Your task to perform on an android device: Open notification settings Image 0: 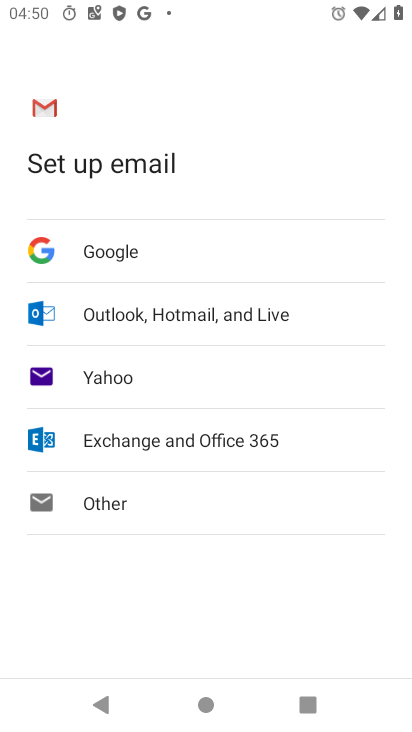
Step 0: press home button
Your task to perform on an android device: Open notification settings Image 1: 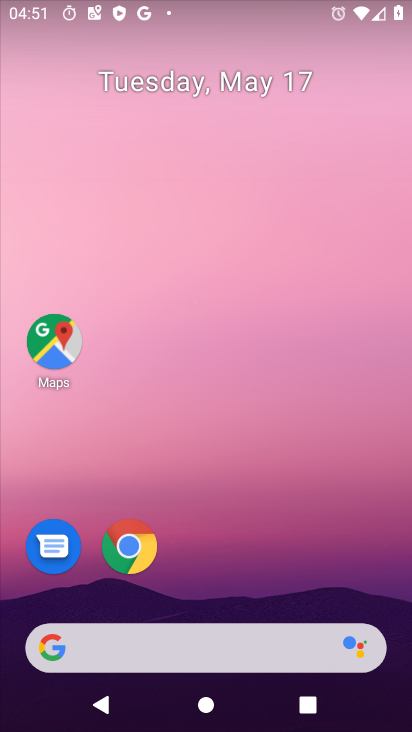
Step 1: press home button
Your task to perform on an android device: Open notification settings Image 2: 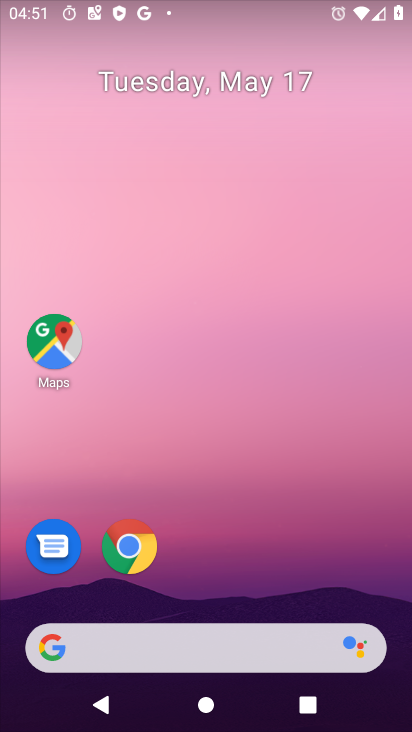
Step 2: drag from (397, 675) to (391, 247)
Your task to perform on an android device: Open notification settings Image 3: 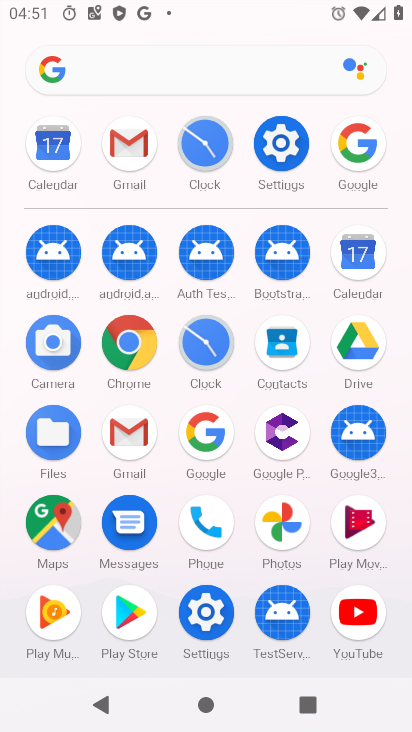
Step 3: click (274, 149)
Your task to perform on an android device: Open notification settings Image 4: 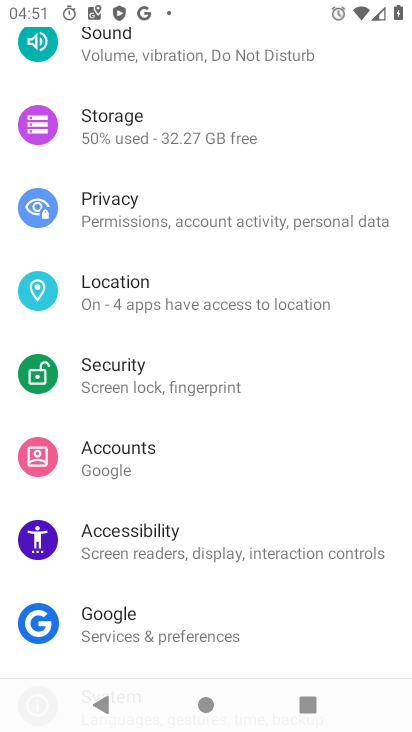
Step 4: drag from (256, 229) to (259, 402)
Your task to perform on an android device: Open notification settings Image 5: 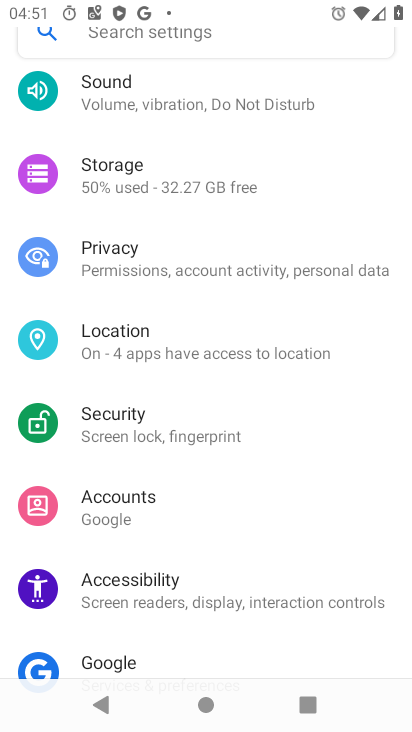
Step 5: drag from (226, 166) to (233, 408)
Your task to perform on an android device: Open notification settings Image 6: 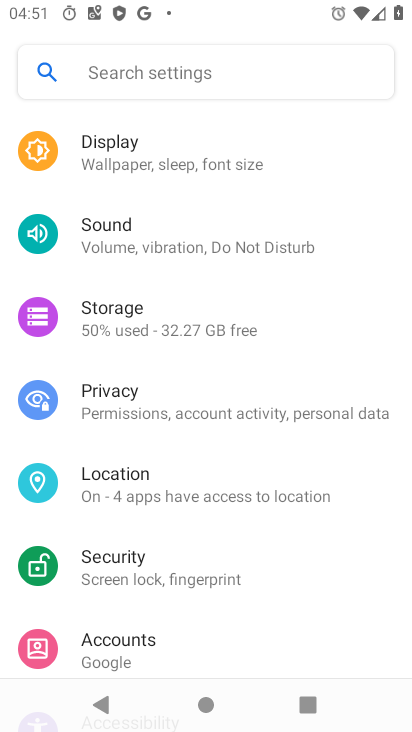
Step 6: drag from (215, 166) to (250, 447)
Your task to perform on an android device: Open notification settings Image 7: 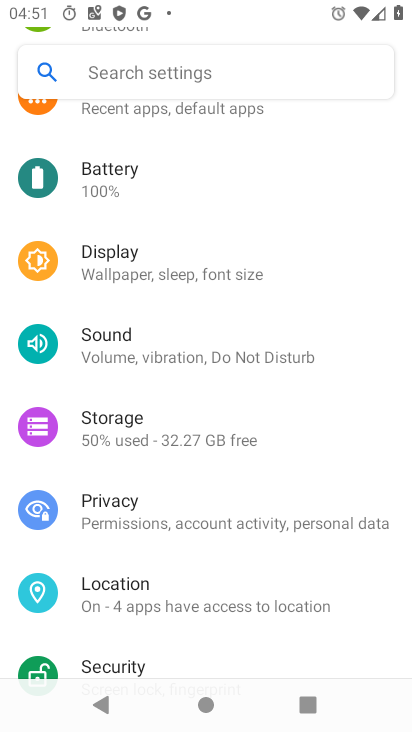
Step 7: drag from (212, 280) to (238, 508)
Your task to perform on an android device: Open notification settings Image 8: 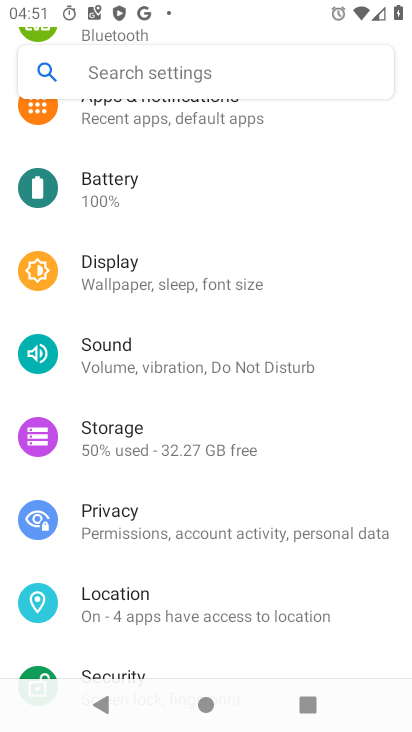
Step 8: drag from (241, 245) to (266, 411)
Your task to perform on an android device: Open notification settings Image 9: 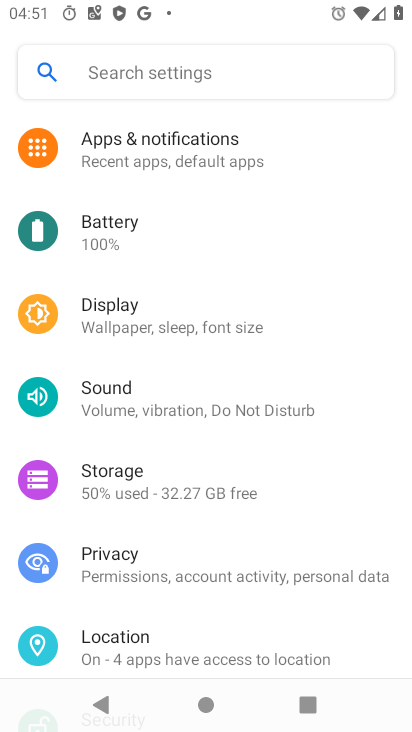
Step 9: click (167, 137)
Your task to perform on an android device: Open notification settings Image 10: 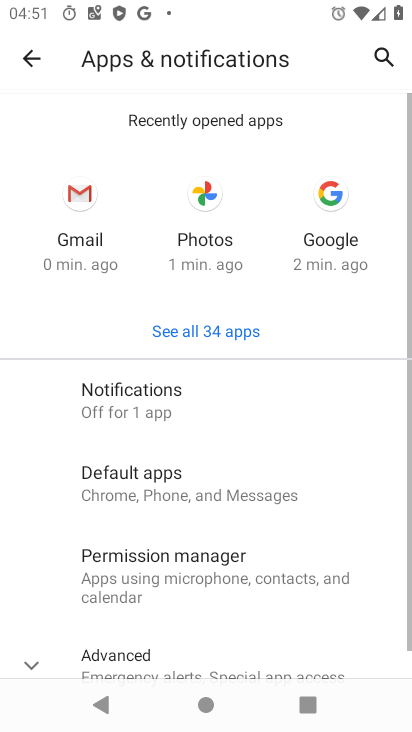
Step 10: click (147, 387)
Your task to perform on an android device: Open notification settings Image 11: 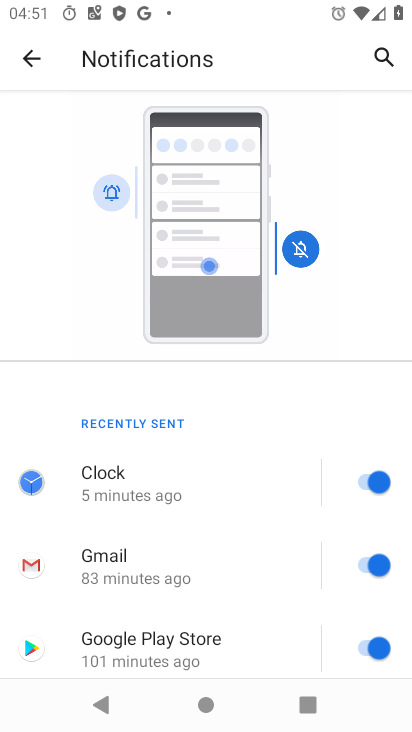
Step 11: task complete